Your task to perform on an android device: Search for "sony triple a" on ebay, select the first entry, add it to the cart, then select checkout. Image 0: 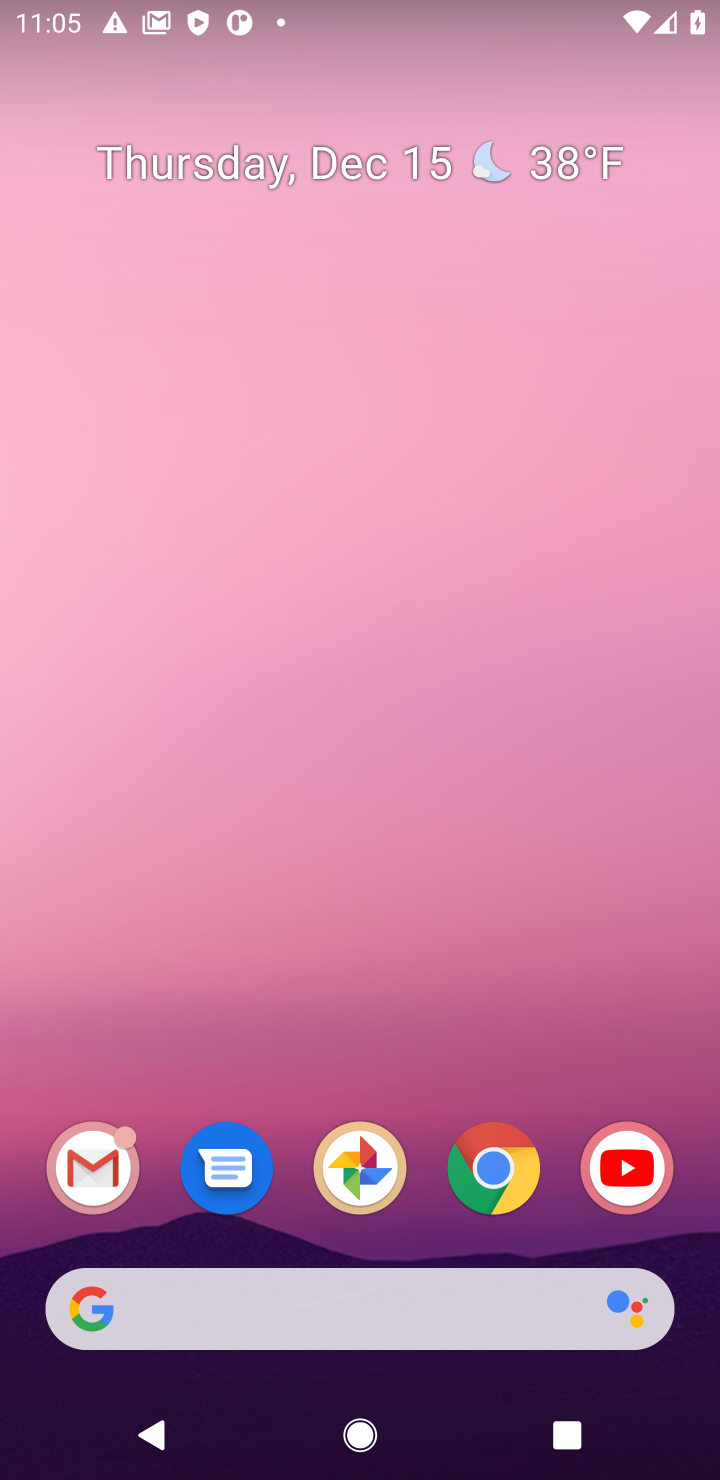
Step 0: click (556, 1203)
Your task to perform on an android device: Search for "sony triple a" on ebay, select the first entry, add it to the cart, then select checkout. Image 1: 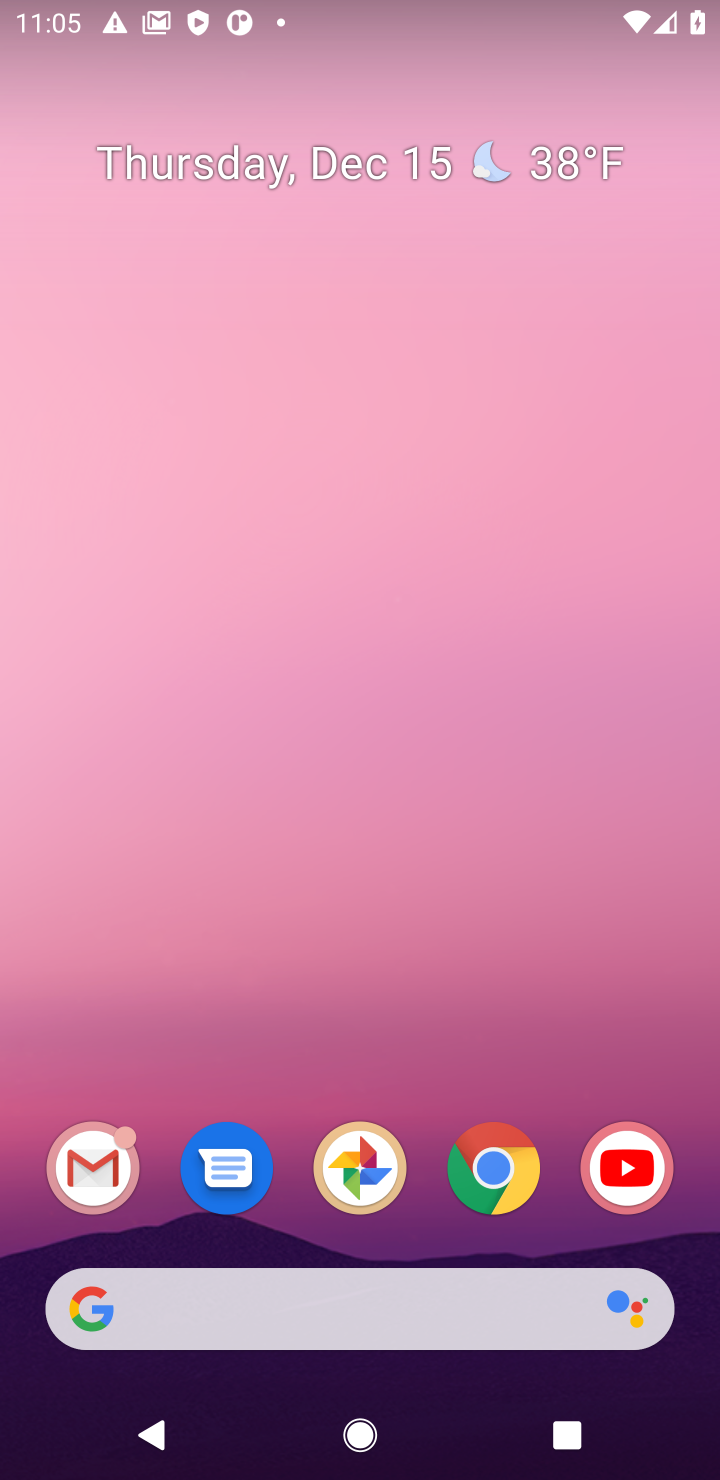
Step 1: click (509, 1191)
Your task to perform on an android device: Search for "sony triple a" on ebay, select the first entry, add it to the cart, then select checkout. Image 2: 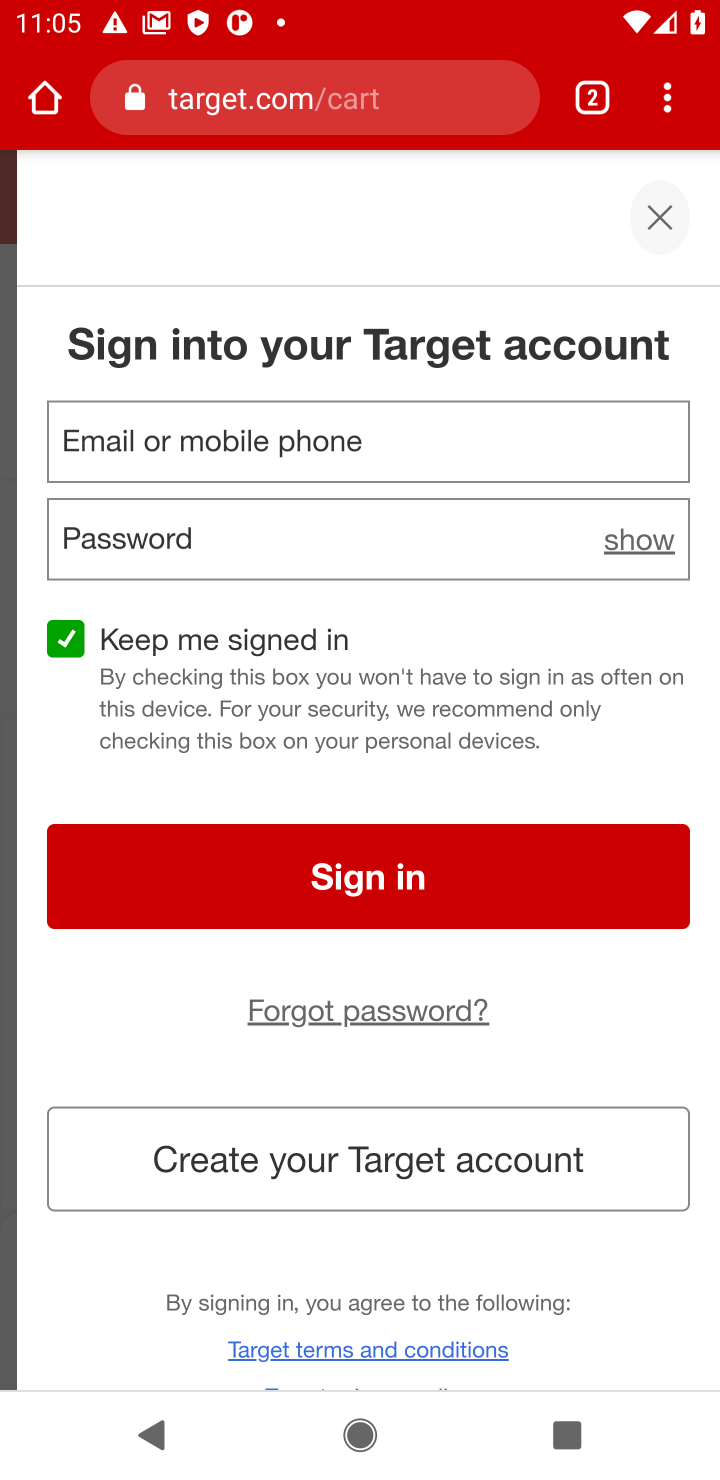
Step 2: click (381, 89)
Your task to perform on an android device: Search for "sony triple a" on ebay, select the first entry, add it to the cart, then select checkout. Image 3: 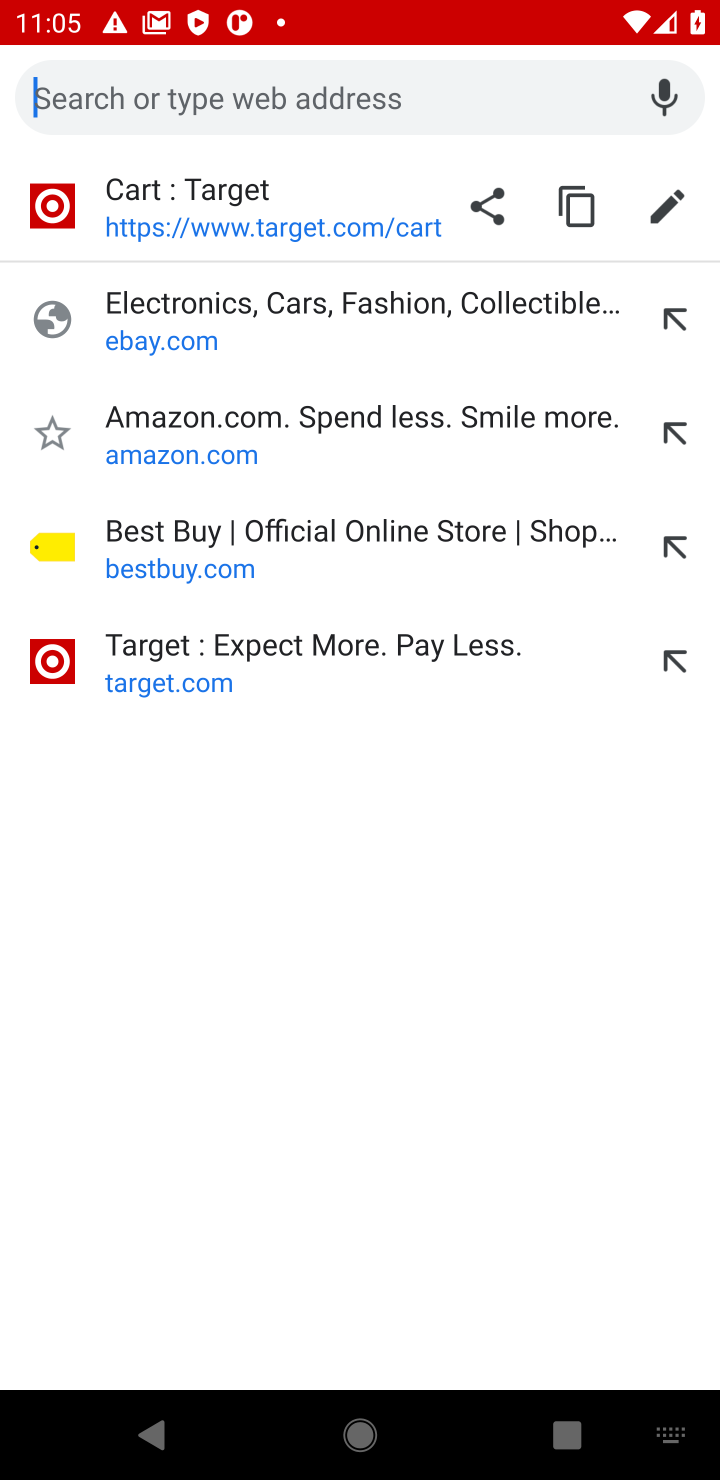
Step 3: click (330, 323)
Your task to perform on an android device: Search for "sony triple a" on ebay, select the first entry, add it to the cart, then select checkout. Image 4: 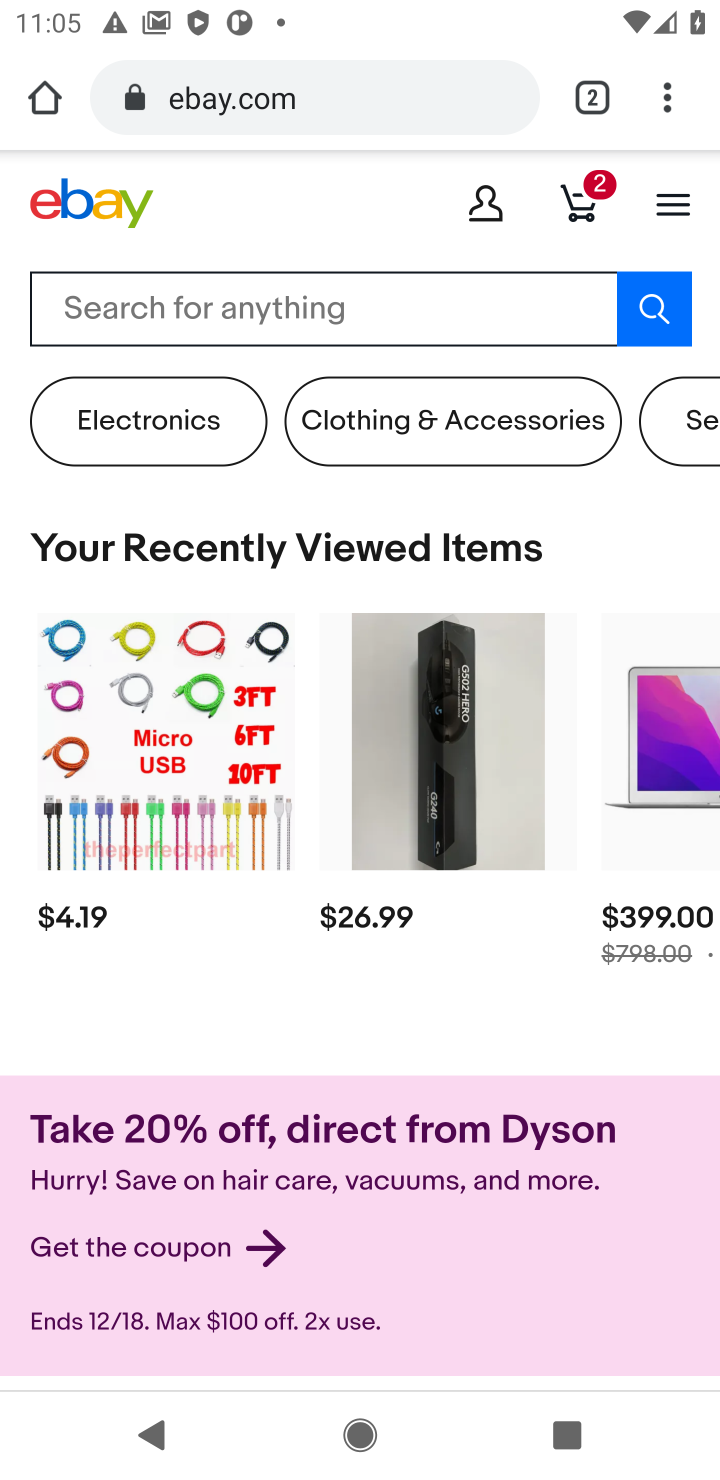
Step 4: click (330, 323)
Your task to perform on an android device: Search for "sony triple a" on ebay, select the first entry, add it to the cart, then select checkout. Image 5: 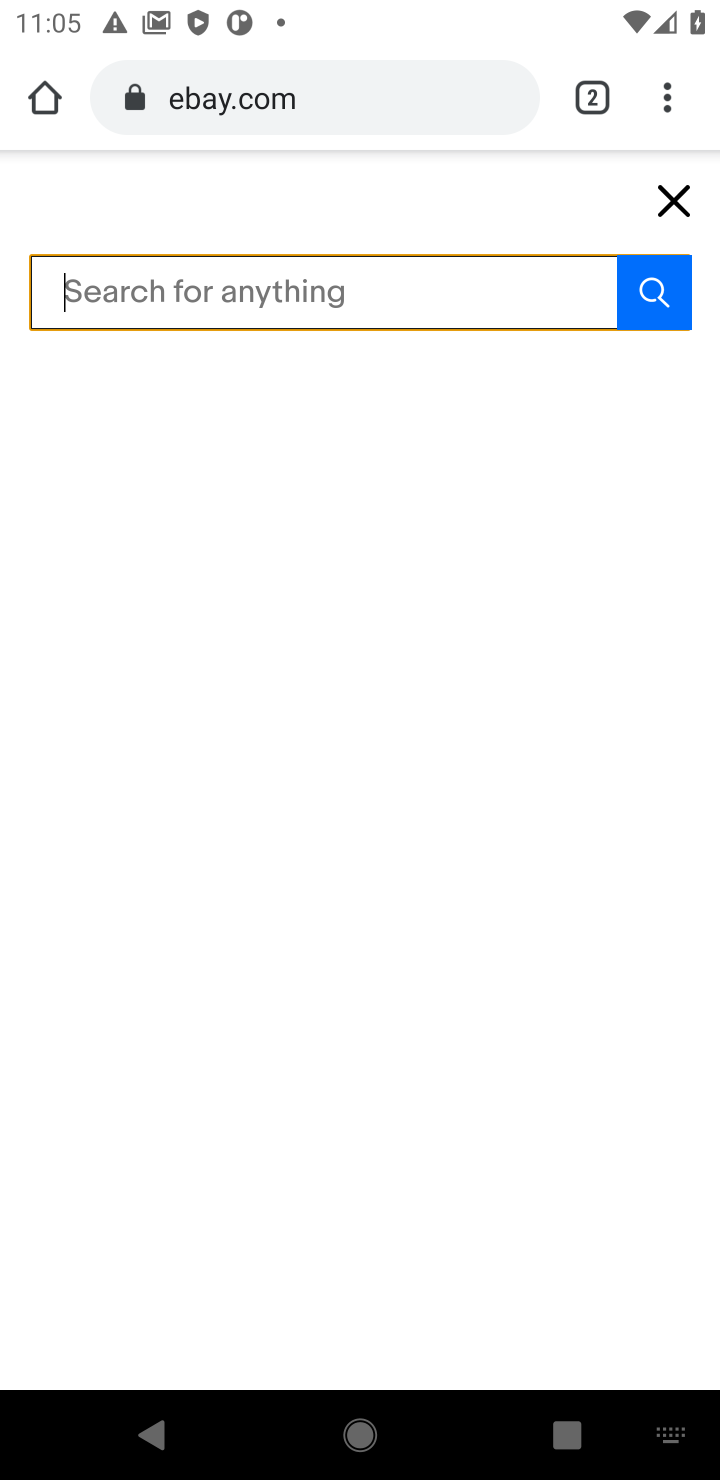
Step 5: type "sony triple a"
Your task to perform on an android device: Search for "sony triple a" on ebay, select the first entry, add it to the cart, then select checkout. Image 6: 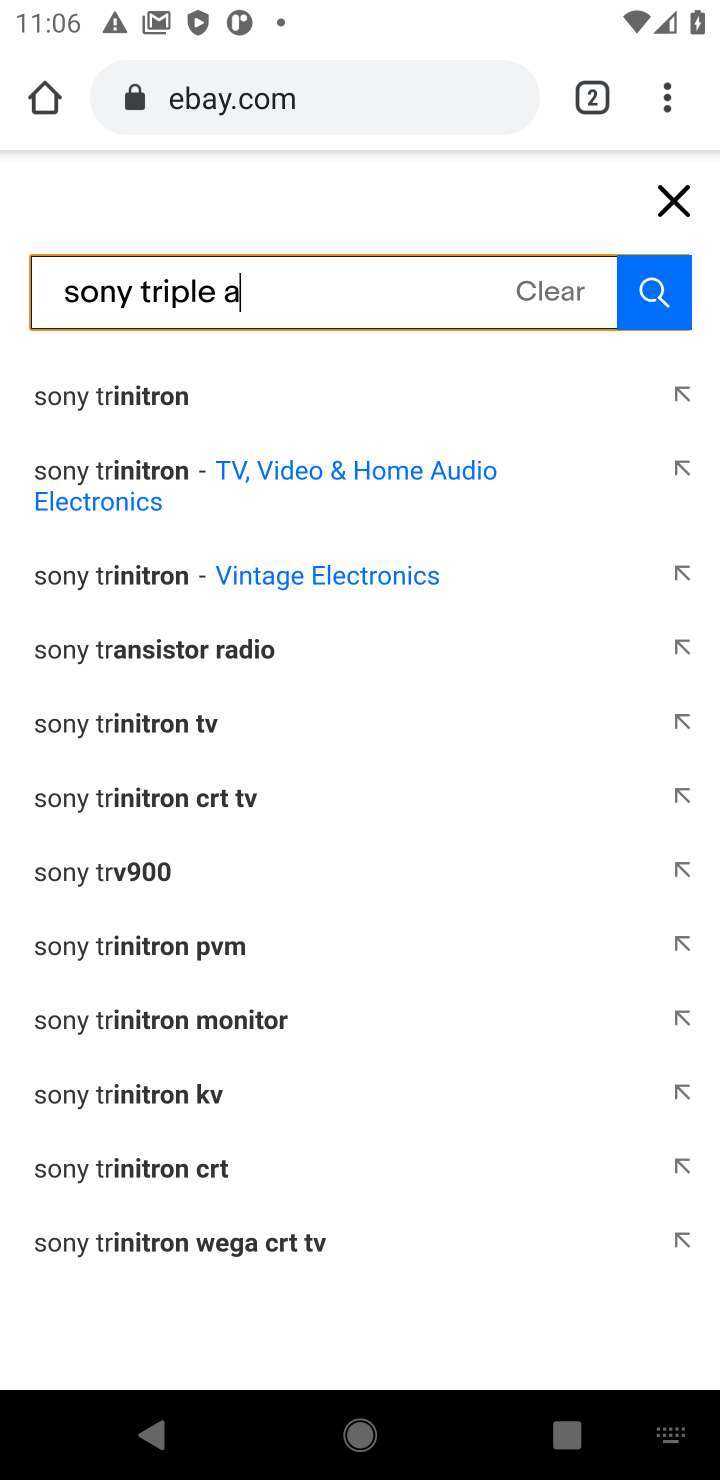
Step 6: click (165, 391)
Your task to perform on an android device: Search for "sony triple a" on ebay, select the first entry, add it to the cart, then select checkout. Image 7: 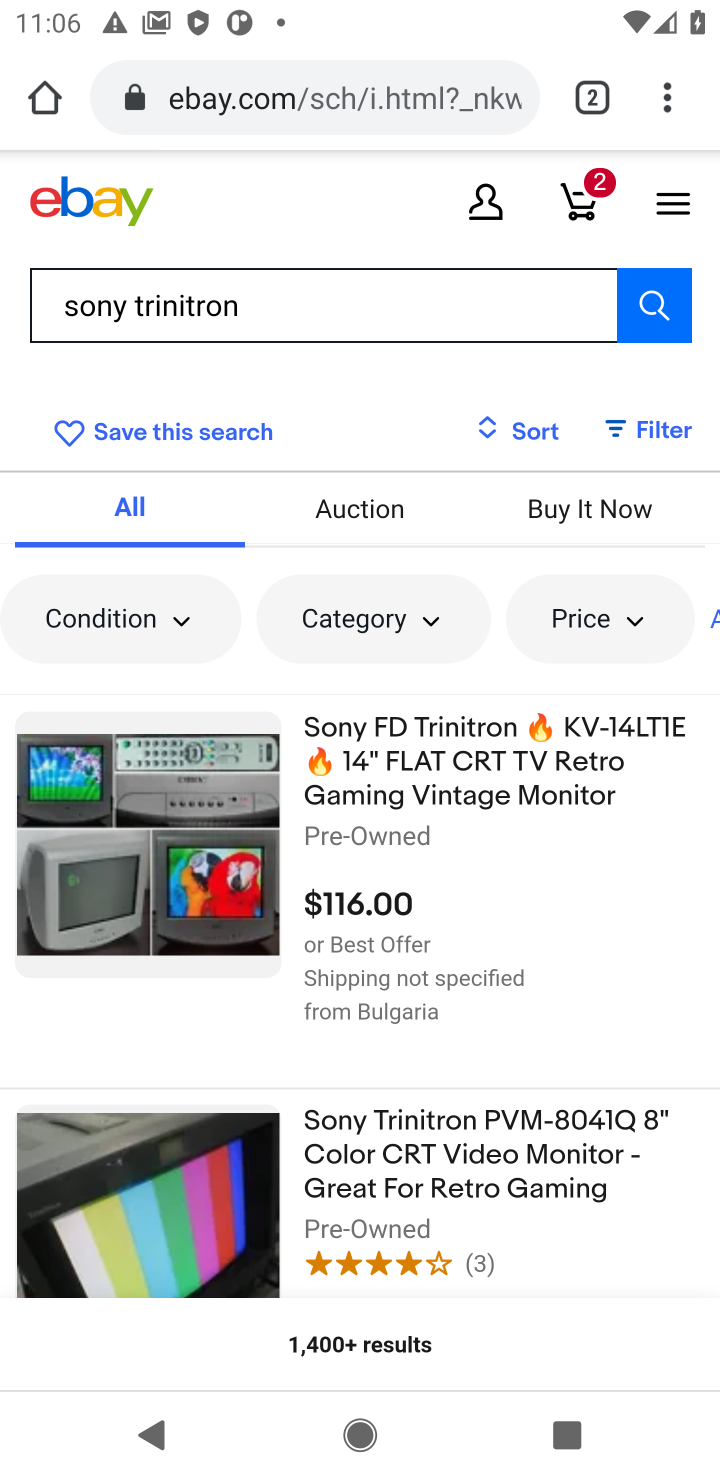
Step 7: click (573, 762)
Your task to perform on an android device: Search for "sony triple a" on ebay, select the first entry, add it to the cart, then select checkout. Image 8: 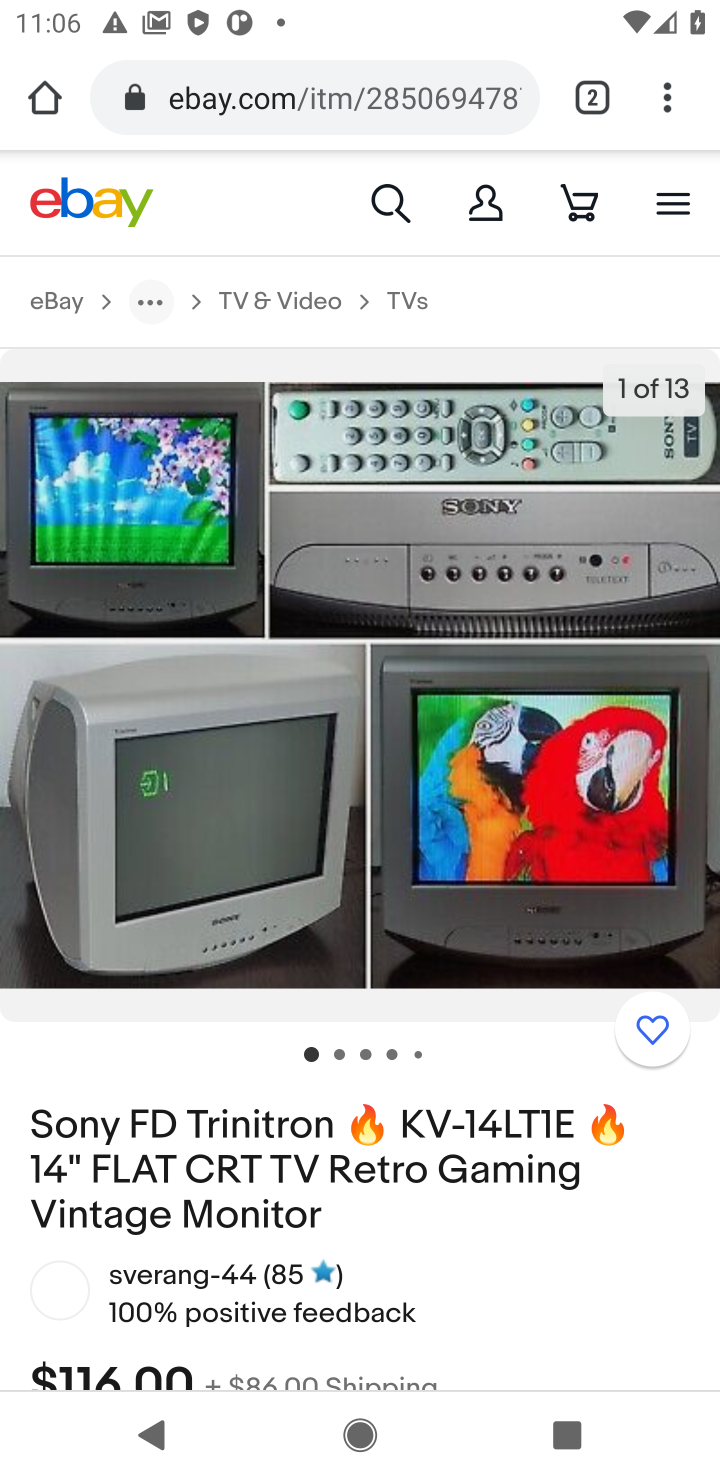
Step 8: drag from (529, 1237) to (554, 348)
Your task to perform on an android device: Search for "sony triple a" on ebay, select the first entry, add it to the cart, then select checkout. Image 9: 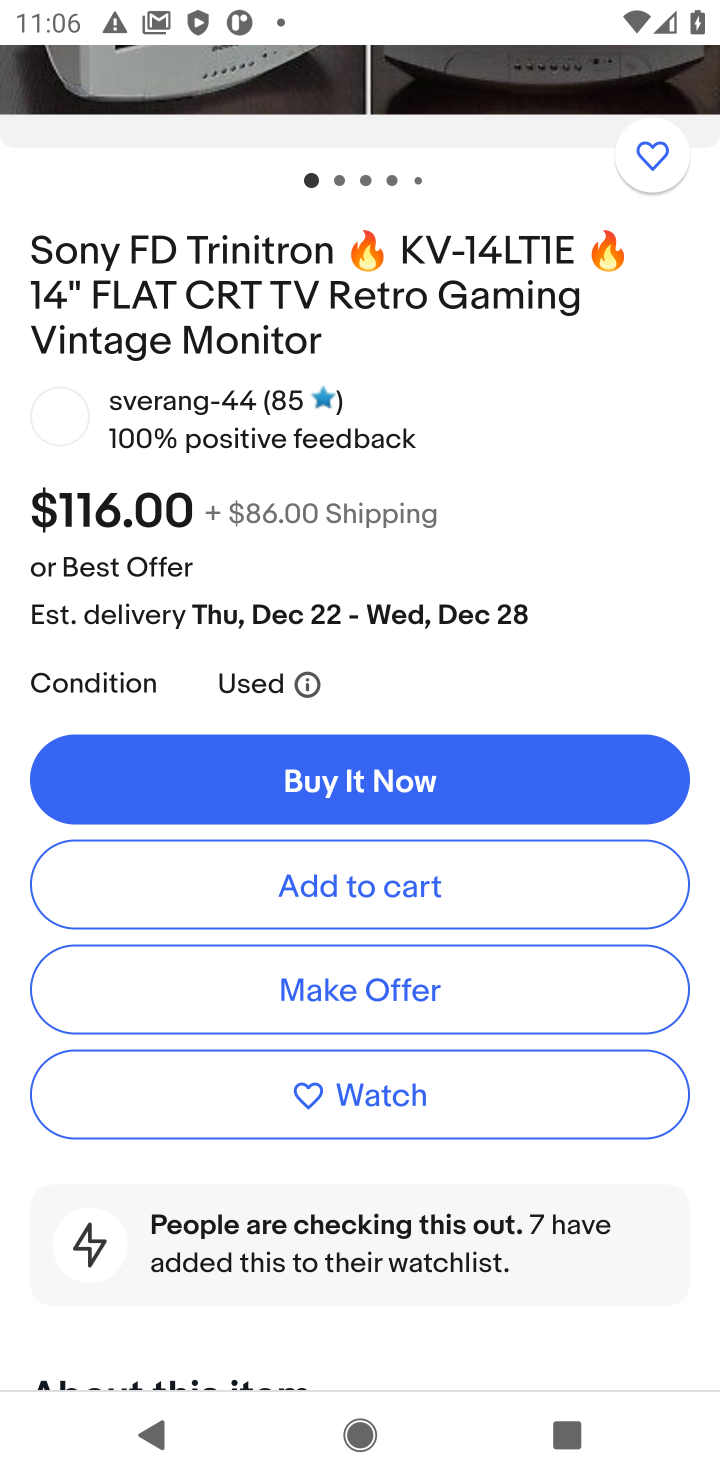
Step 9: click (422, 890)
Your task to perform on an android device: Search for "sony triple a" on ebay, select the first entry, add it to the cart, then select checkout. Image 10: 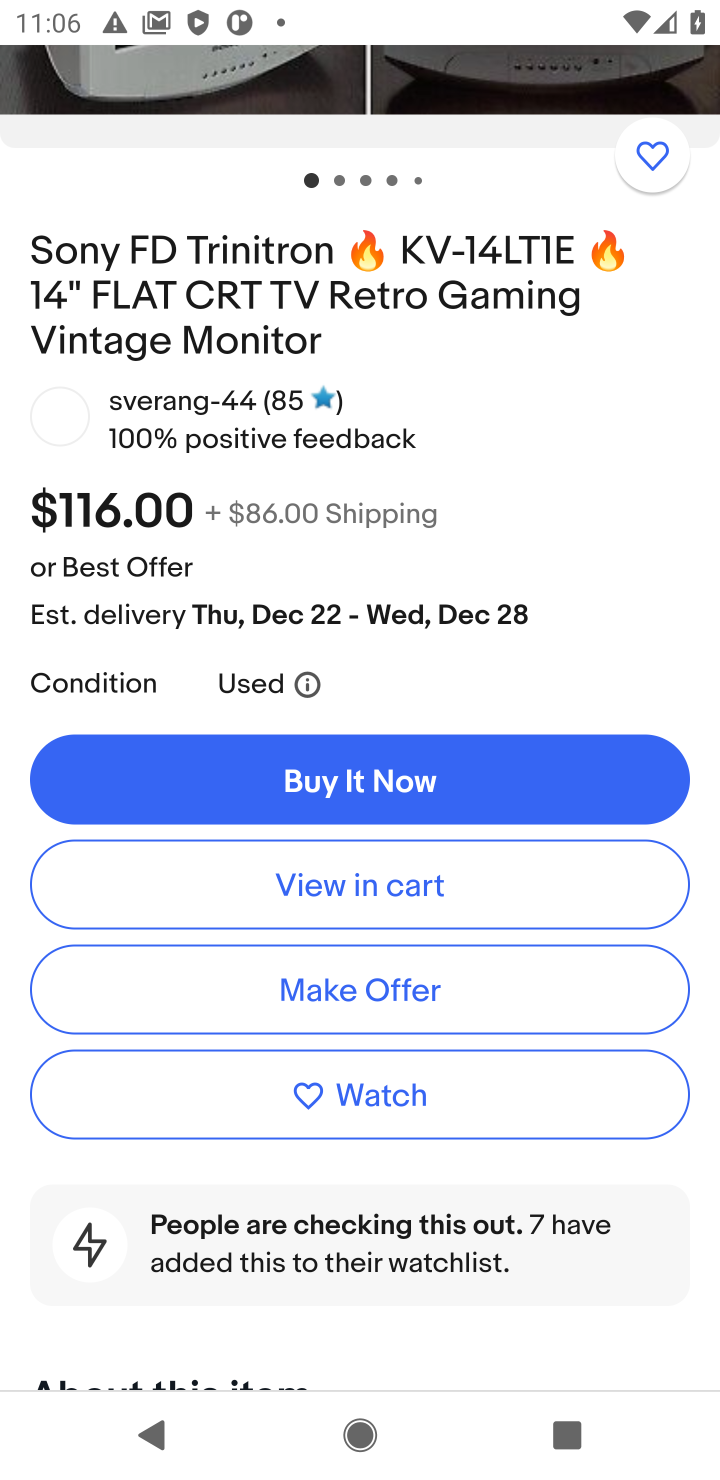
Step 10: click (442, 884)
Your task to perform on an android device: Search for "sony triple a" on ebay, select the first entry, add it to the cart, then select checkout. Image 11: 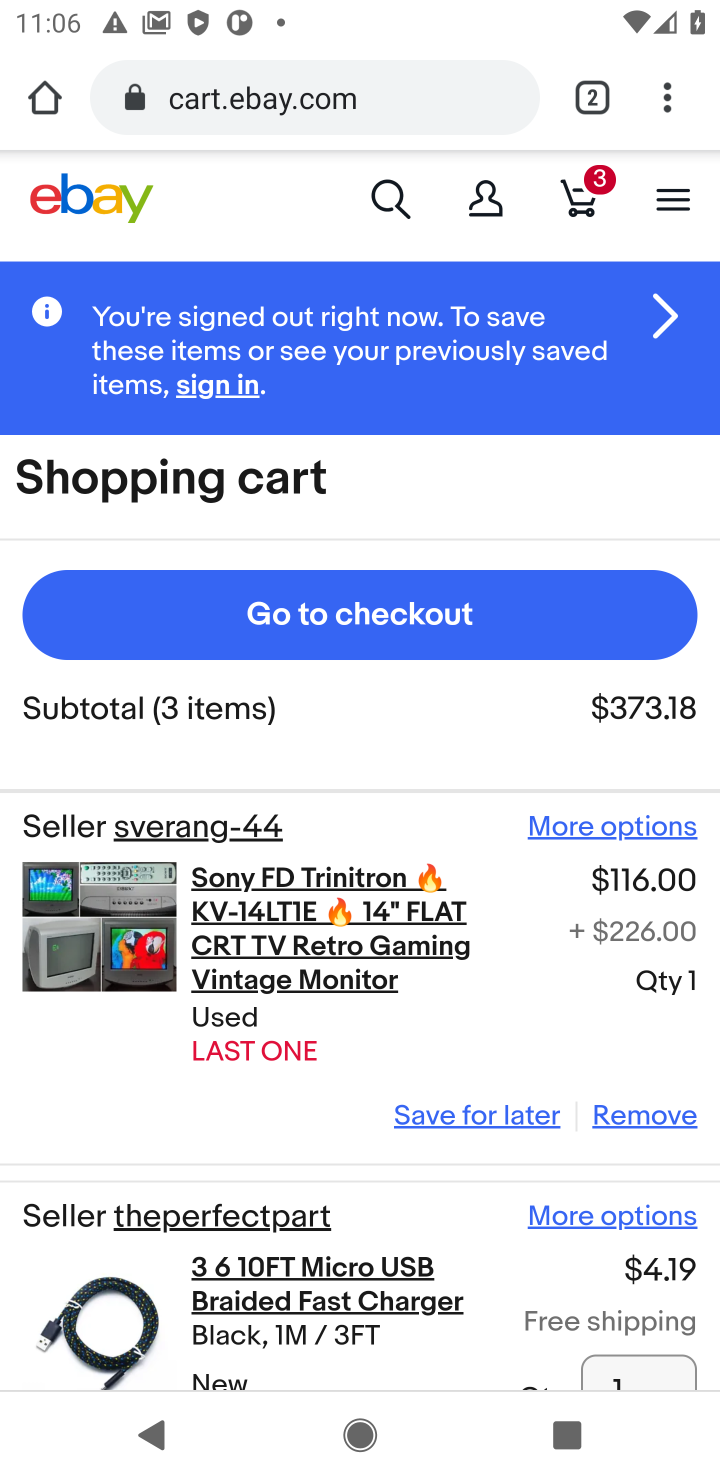
Step 11: click (490, 625)
Your task to perform on an android device: Search for "sony triple a" on ebay, select the first entry, add it to the cart, then select checkout. Image 12: 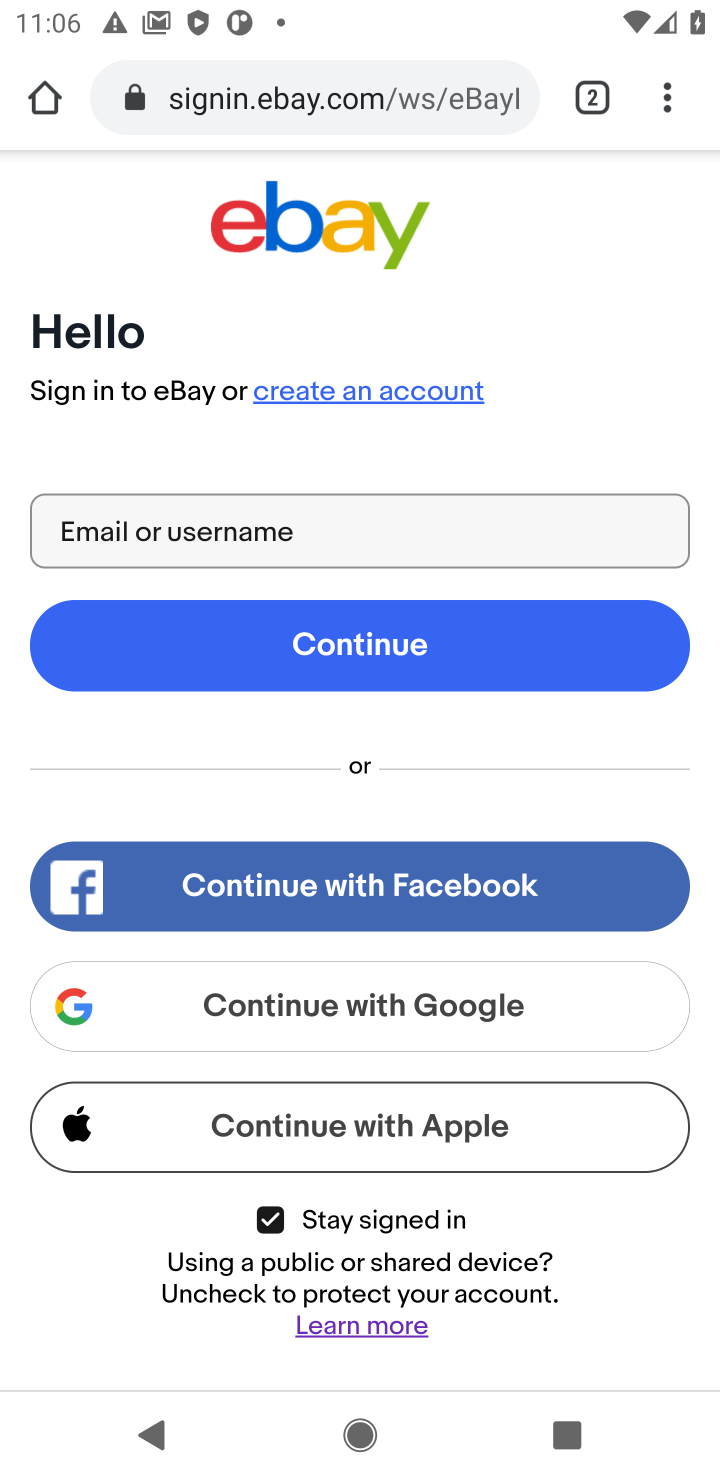
Step 12: task complete